Your task to perform on an android device: Show me the alarms in the clock app Image 0: 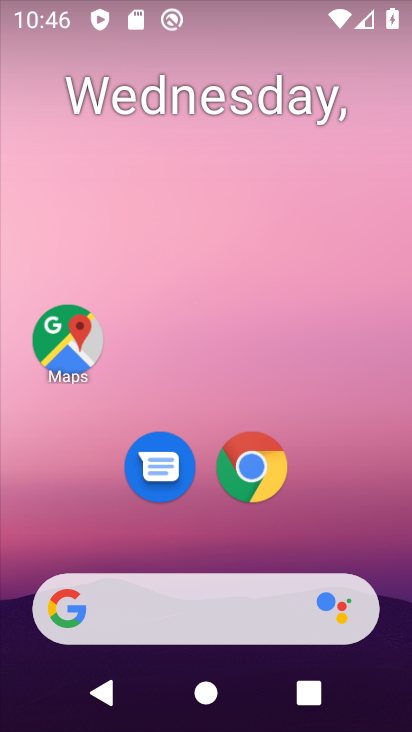
Step 0: drag from (153, 586) to (234, 8)
Your task to perform on an android device: Show me the alarms in the clock app Image 1: 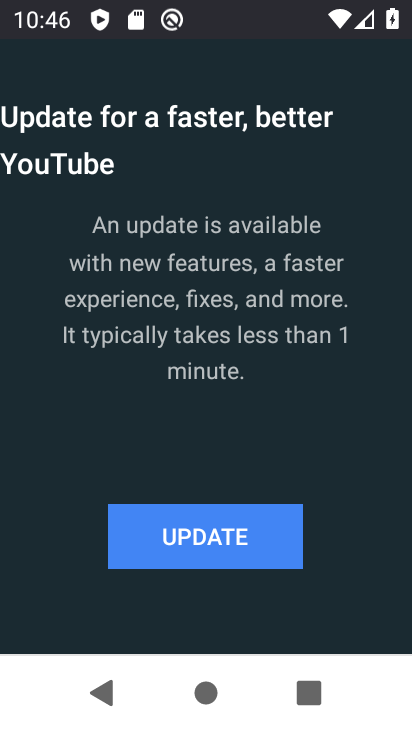
Step 1: press back button
Your task to perform on an android device: Show me the alarms in the clock app Image 2: 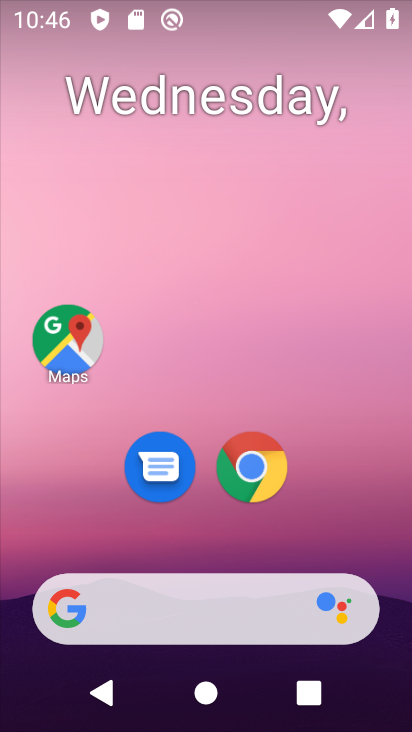
Step 2: drag from (196, 369) to (289, 17)
Your task to perform on an android device: Show me the alarms in the clock app Image 3: 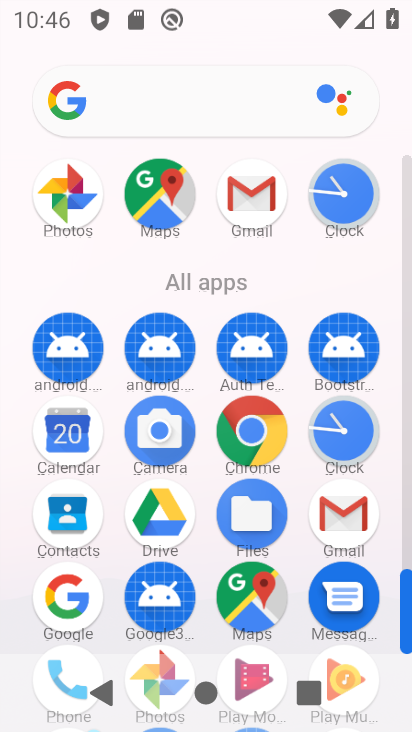
Step 3: click (362, 429)
Your task to perform on an android device: Show me the alarms in the clock app Image 4: 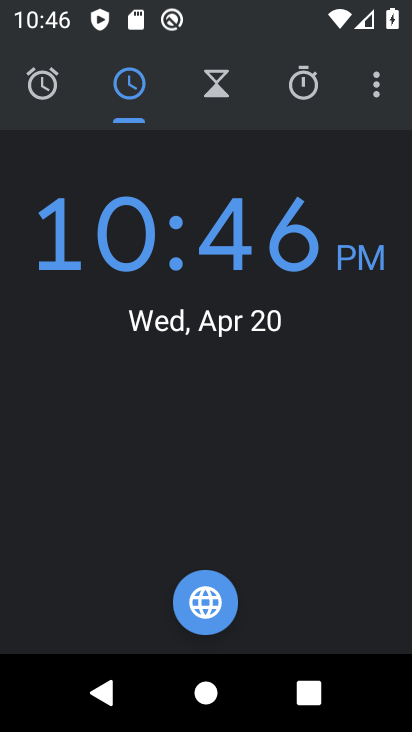
Step 4: click (70, 102)
Your task to perform on an android device: Show me the alarms in the clock app Image 5: 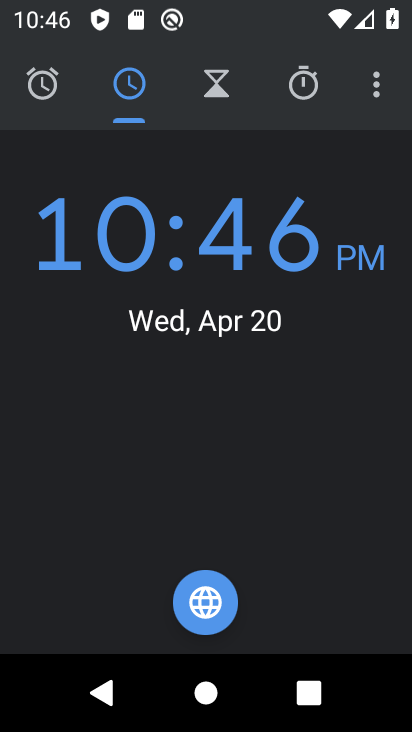
Step 5: click (26, 94)
Your task to perform on an android device: Show me the alarms in the clock app Image 6: 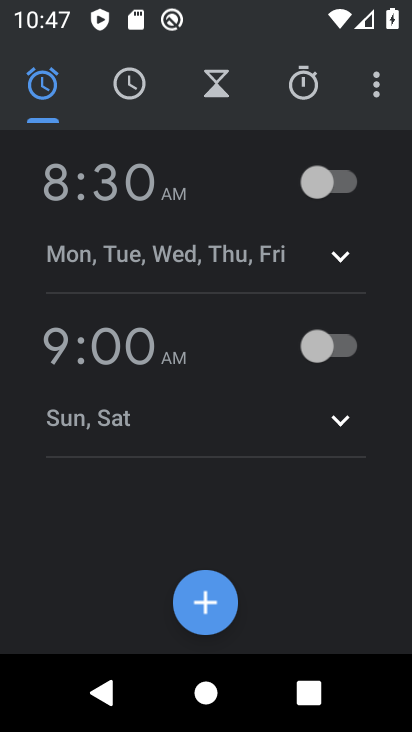
Step 6: task complete